Your task to perform on an android device: Empty the shopping cart on target. Search for apple airpods on target, select the first entry, add it to the cart, then select checkout. Image 0: 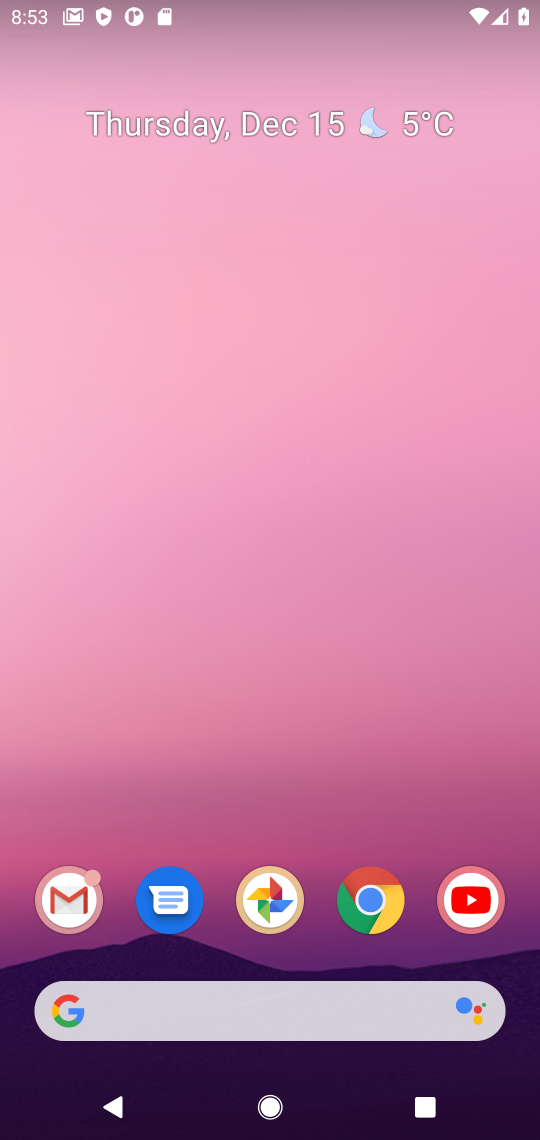
Step 0: click (374, 906)
Your task to perform on an android device: Empty the shopping cart on target. Search for apple airpods on target, select the first entry, add it to the cart, then select checkout. Image 1: 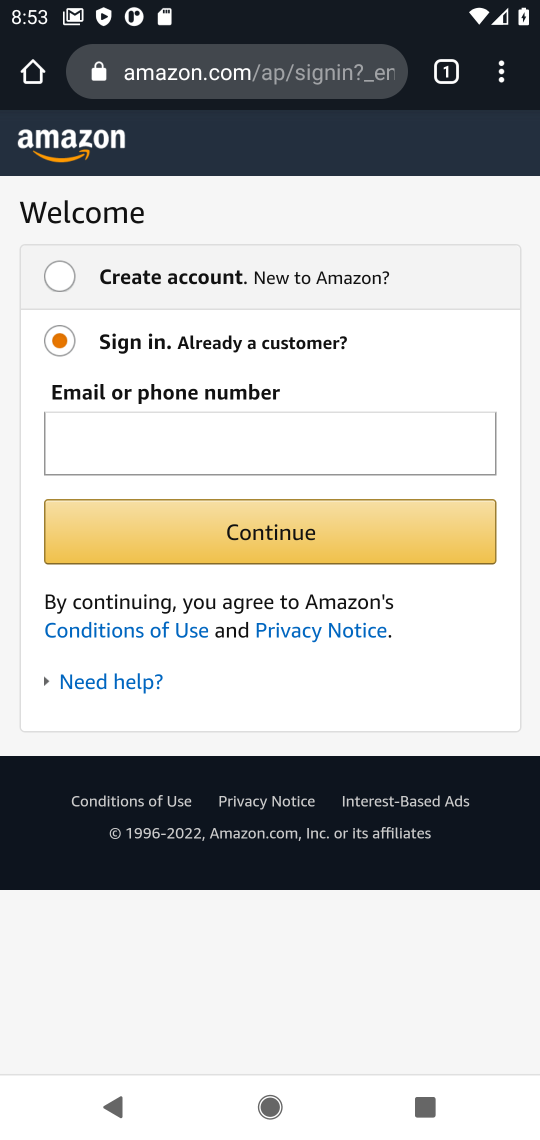
Step 1: click (198, 85)
Your task to perform on an android device: Empty the shopping cart on target. Search for apple airpods on target, select the first entry, add it to the cart, then select checkout. Image 2: 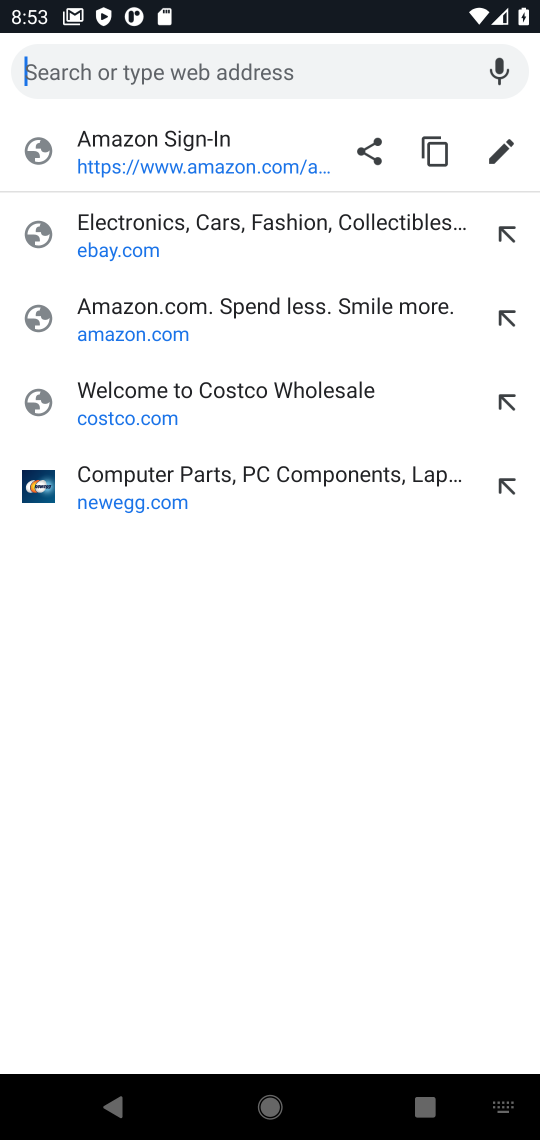
Step 2: type "target"
Your task to perform on an android device: Empty the shopping cart on target. Search for apple airpods on target, select the first entry, add it to the cart, then select checkout. Image 3: 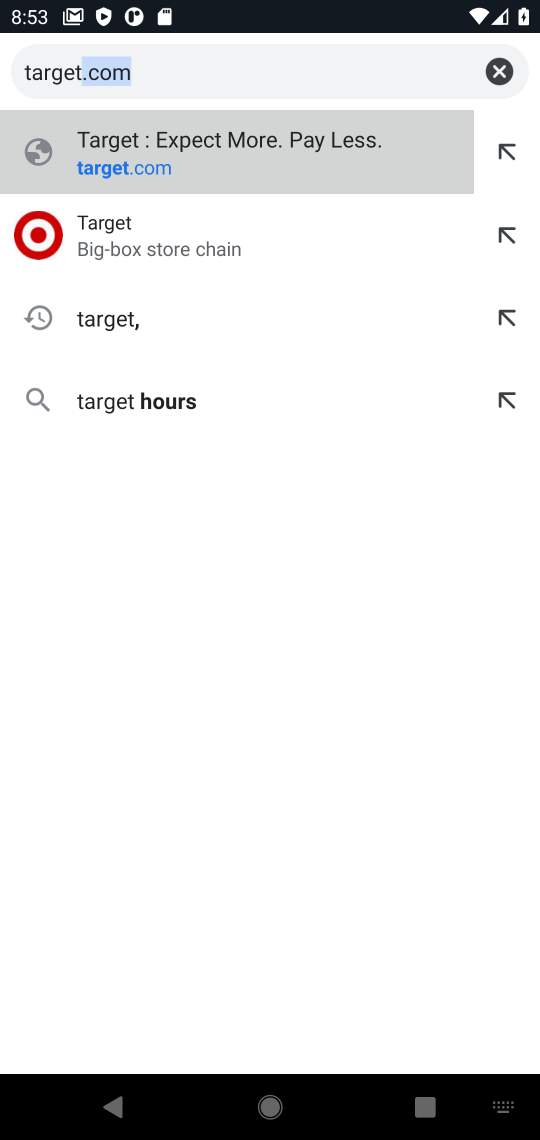
Step 3: click (167, 151)
Your task to perform on an android device: Empty the shopping cart on target. Search for apple airpods on target, select the first entry, add it to the cart, then select checkout. Image 4: 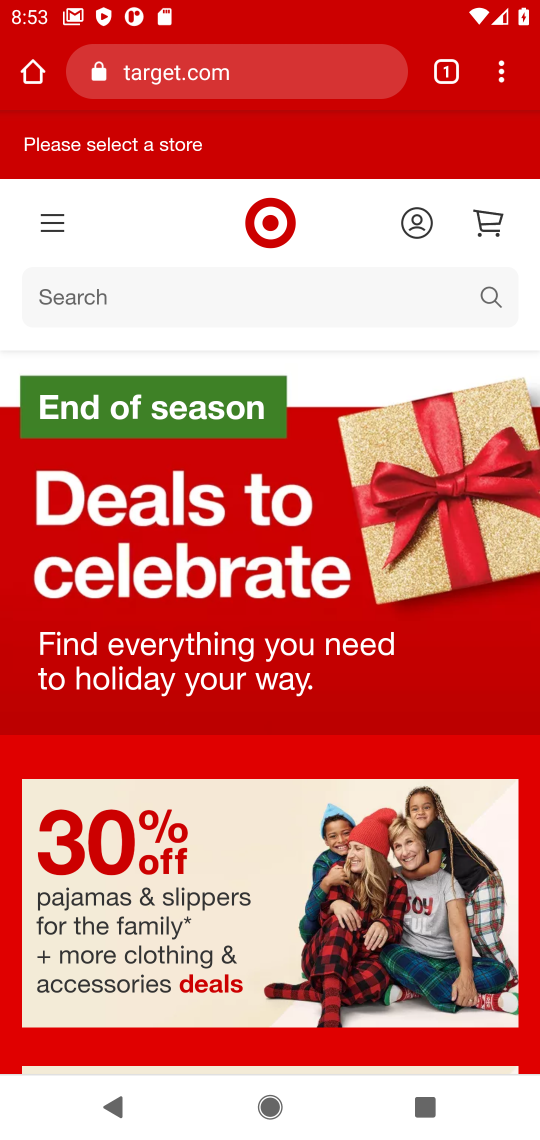
Step 4: click (484, 235)
Your task to perform on an android device: Empty the shopping cart on target. Search for apple airpods on target, select the first entry, add it to the cart, then select checkout. Image 5: 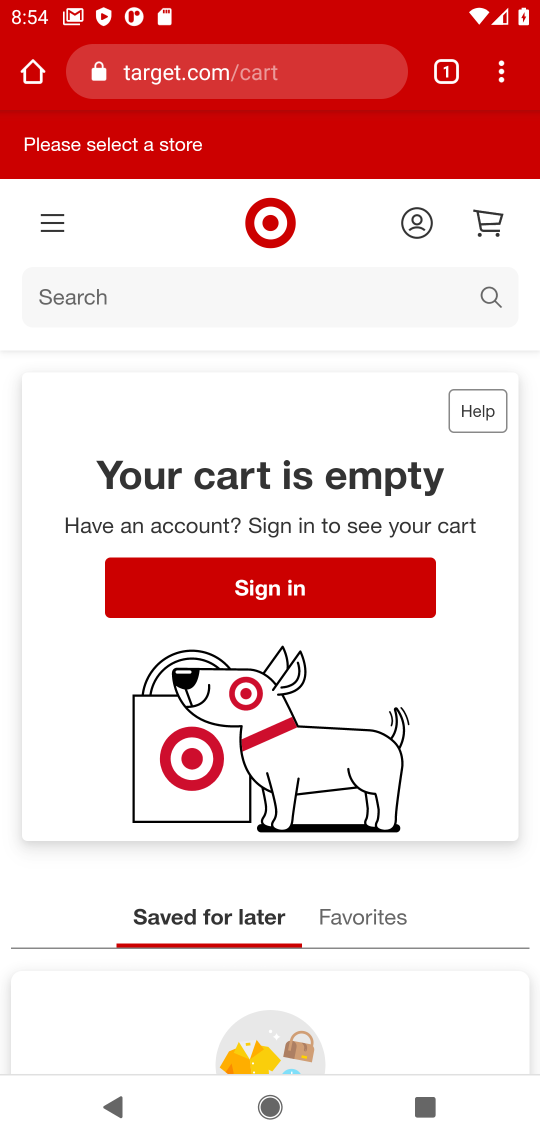
Step 5: click (238, 300)
Your task to perform on an android device: Empty the shopping cart on target. Search for apple airpods on target, select the first entry, add it to the cart, then select checkout. Image 6: 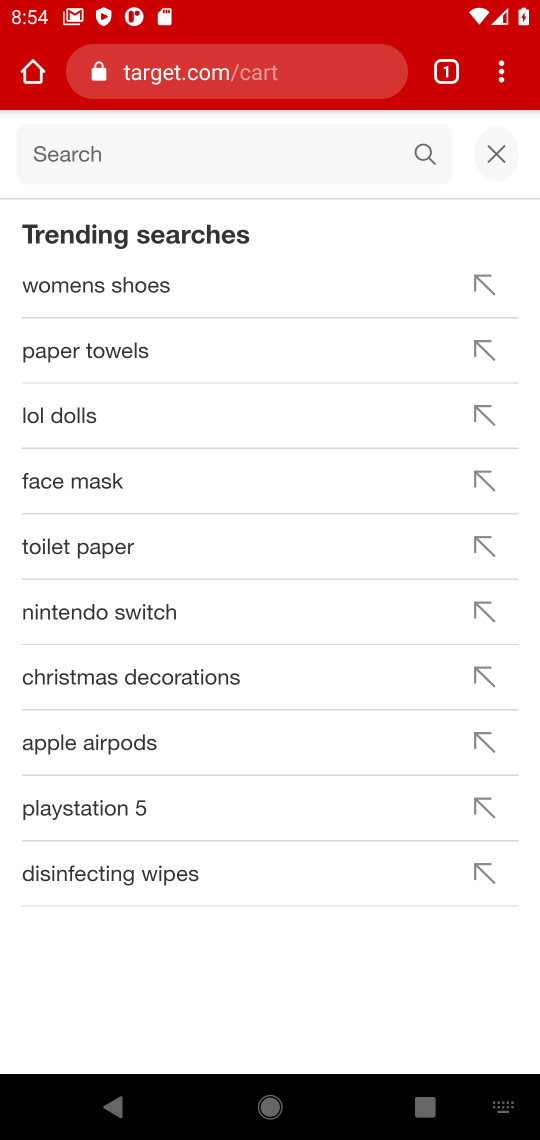
Step 6: type "apple airpods"
Your task to perform on an android device: Empty the shopping cart on target. Search for apple airpods on target, select the first entry, add it to the cart, then select checkout. Image 7: 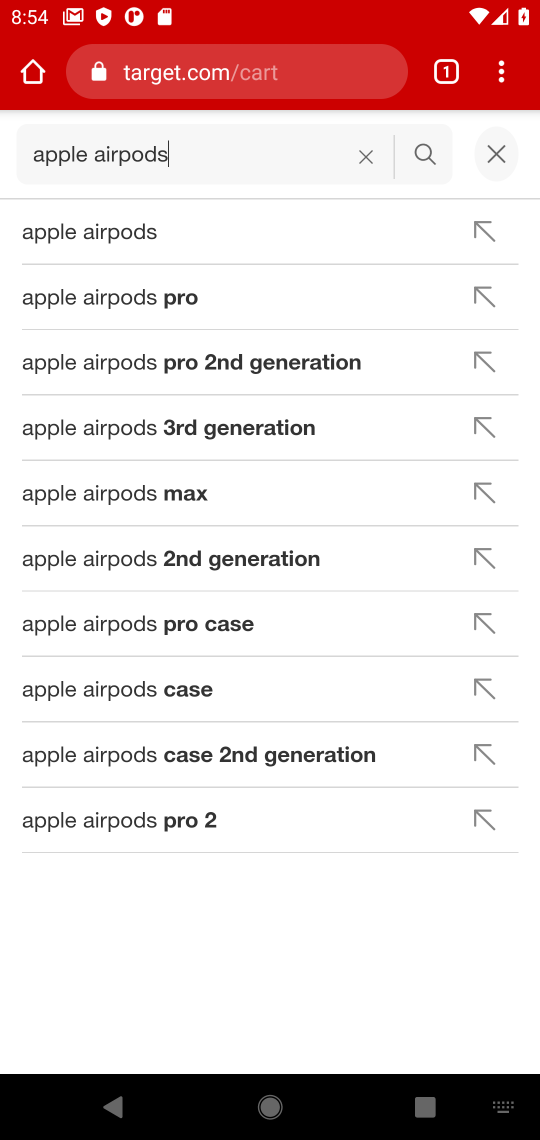
Step 7: click (424, 167)
Your task to perform on an android device: Empty the shopping cart on target. Search for apple airpods on target, select the first entry, add it to the cart, then select checkout. Image 8: 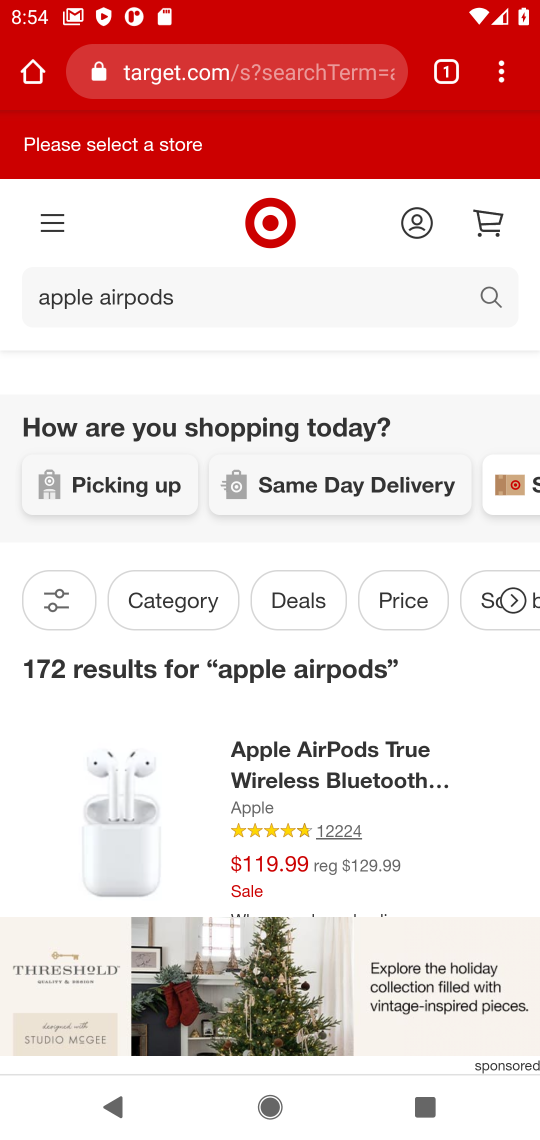
Step 8: drag from (368, 793) to (337, 296)
Your task to perform on an android device: Empty the shopping cart on target. Search for apple airpods on target, select the first entry, add it to the cart, then select checkout. Image 9: 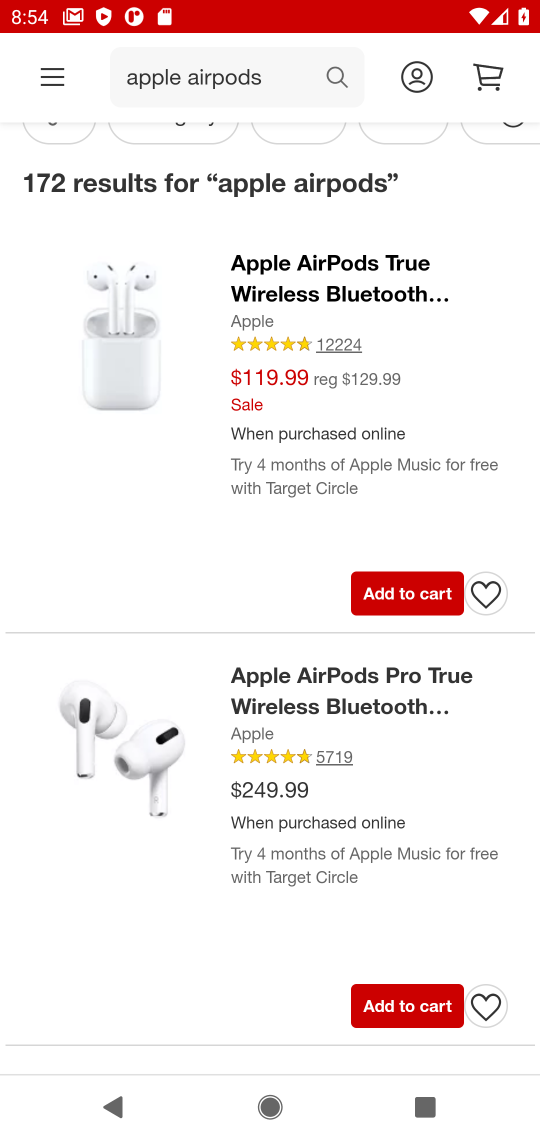
Step 9: click (379, 588)
Your task to perform on an android device: Empty the shopping cart on target. Search for apple airpods on target, select the first entry, add it to the cart, then select checkout. Image 10: 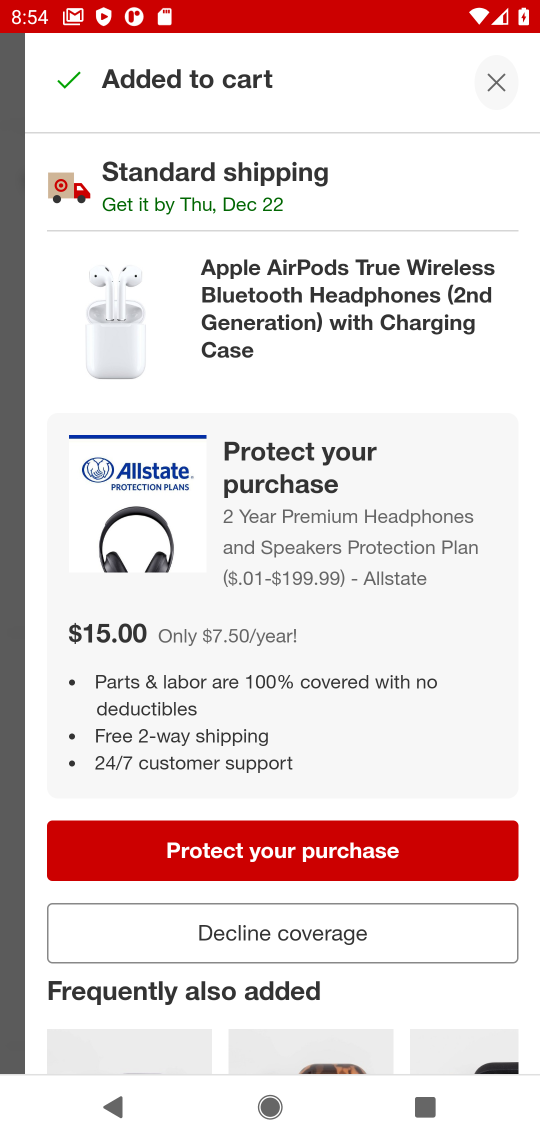
Step 10: click (267, 846)
Your task to perform on an android device: Empty the shopping cart on target. Search for apple airpods on target, select the first entry, add it to the cart, then select checkout. Image 11: 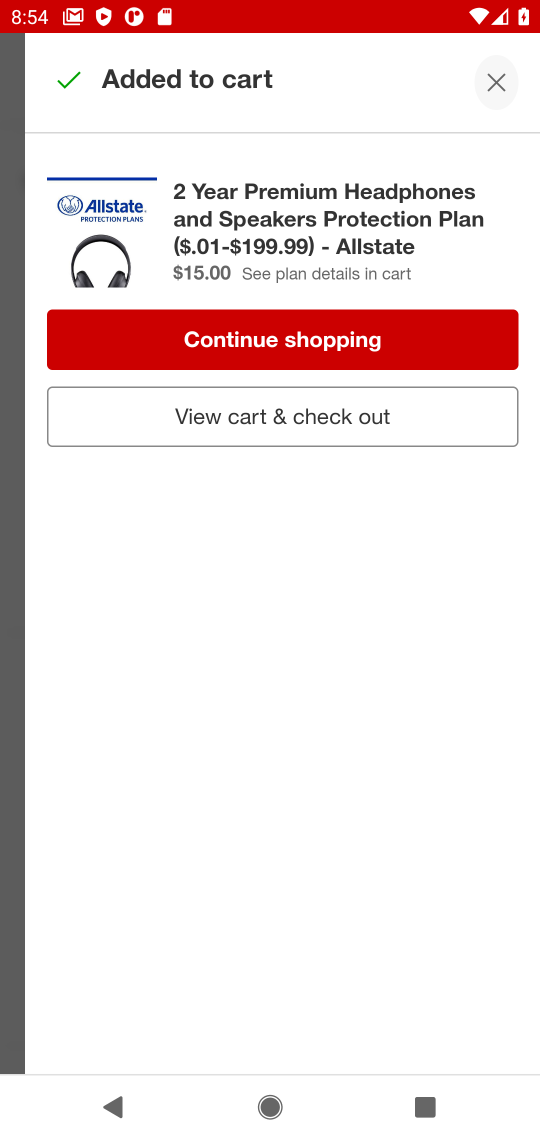
Step 11: click (300, 403)
Your task to perform on an android device: Empty the shopping cart on target. Search for apple airpods on target, select the first entry, add it to the cart, then select checkout. Image 12: 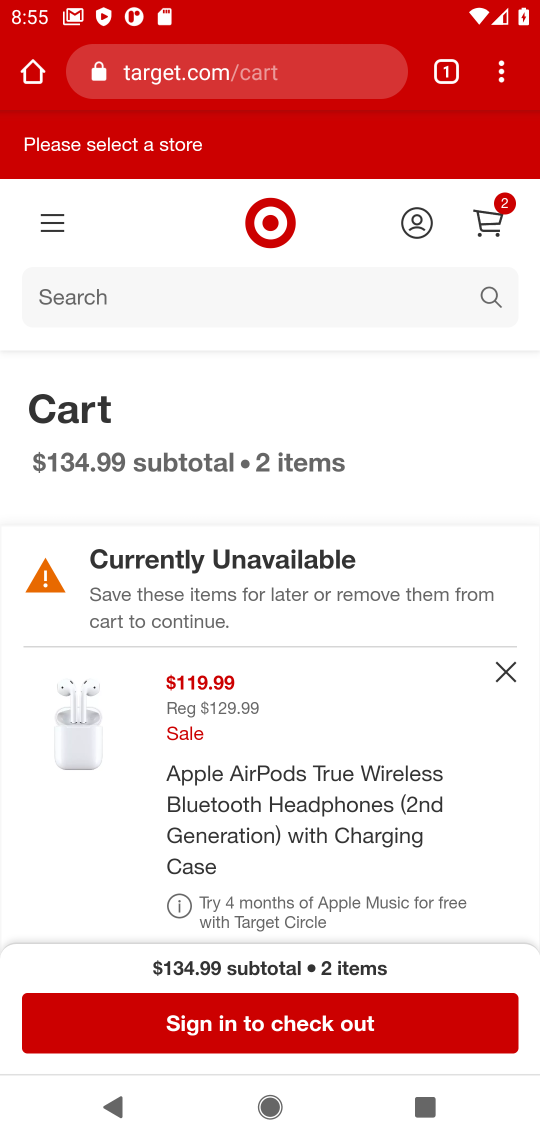
Step 12: task complete